Your task to perform on an android device: Open CNN.com Image 0: 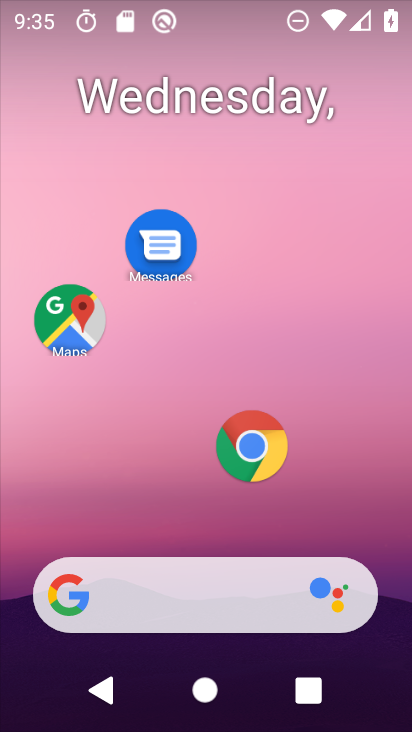
Step 0: drag from (227, 529) to (295, 171)
Your task to perform on an android device: Open CNN.com Image 1: 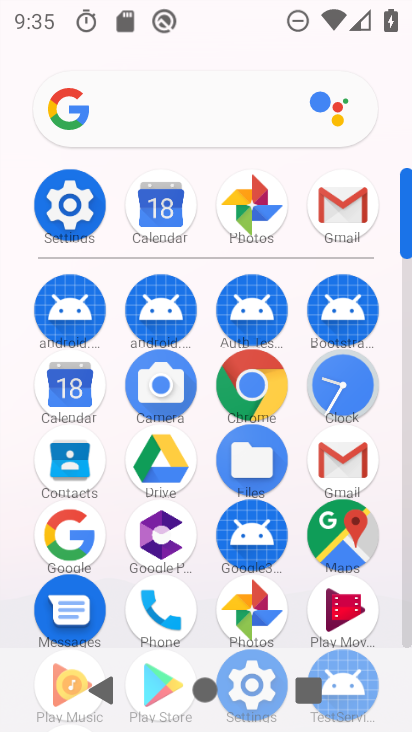
Step 1: click (248, 378)
Your task to perform on an android device: Open CNN.com Image 2: 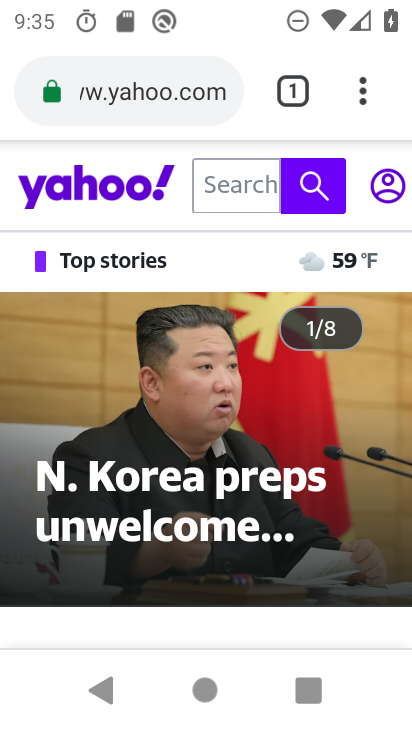
Step 2: click (295, 99)
Your task to perform on an android device: Open CNN.com Image 3: 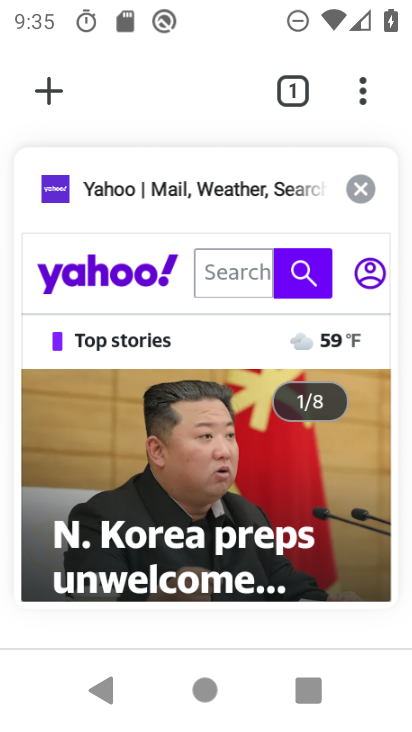
Step 3: click (365, 193)
Your task to perform on an android device: Open CNN.com Image 4: 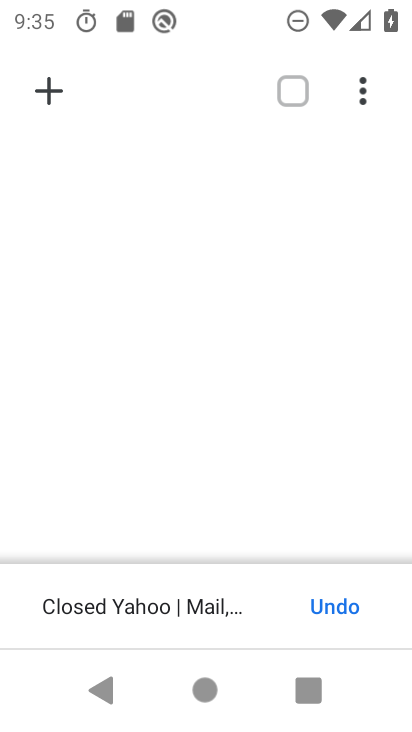
Step 4: click (61, 93)
Your task to perform on an android device: Open CNN.com Image 5: 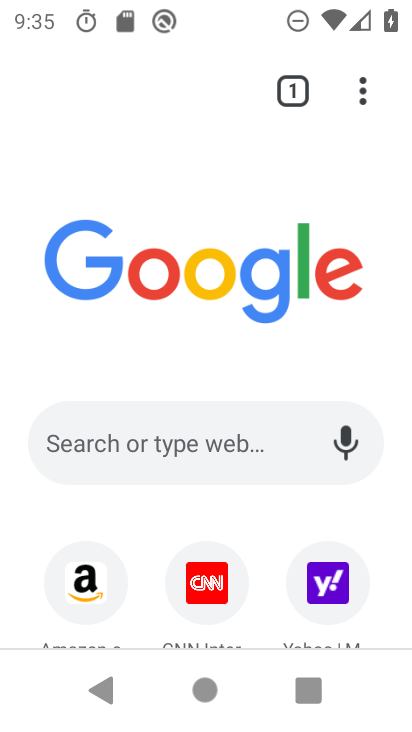
Step 5: click (181, 436)
Your task to perform on an android device: Open CNN.com Image 6: 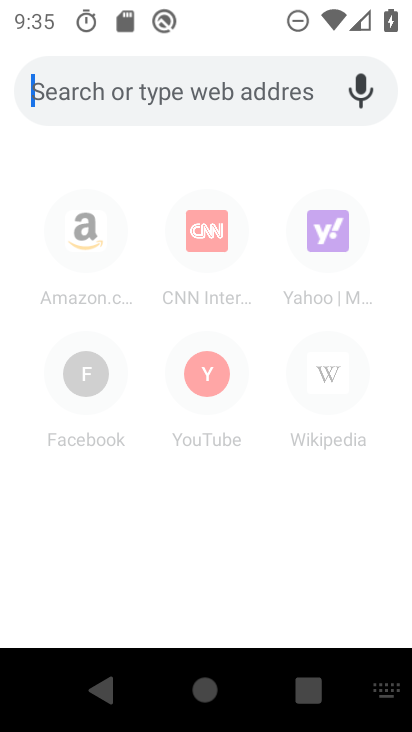
Step 6: click (224, 236)
Your task to perform on an android device: Open CNN.com Image 7: 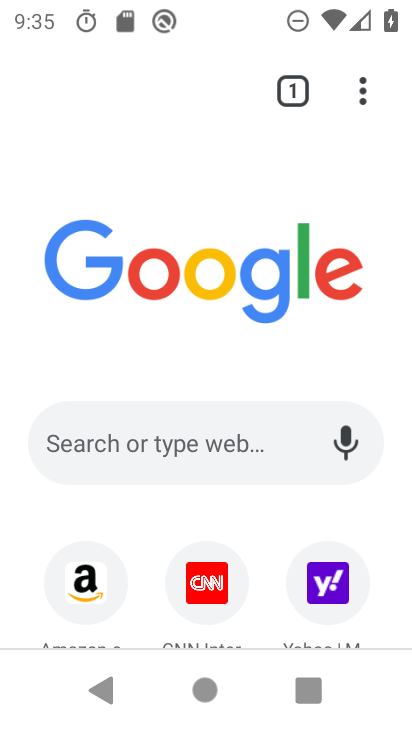
Step 7: click (203, 567)
Your task to perform on an android device: Open CNN.com Image 8: 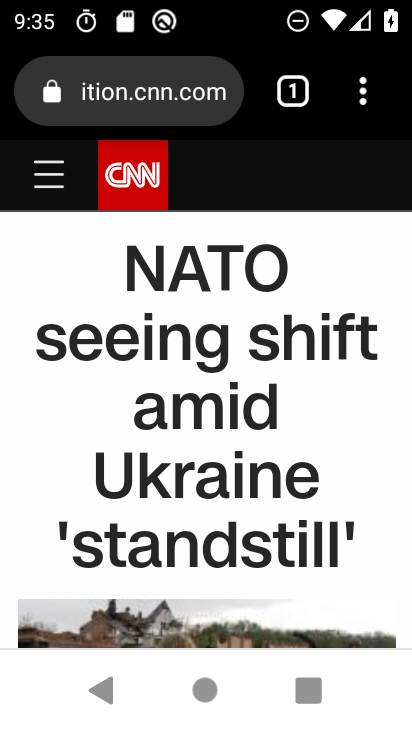
Step 8: drag from (205, 540) to (258, 230)
Your task to perform on an android device: Open CNN.com Image 9: 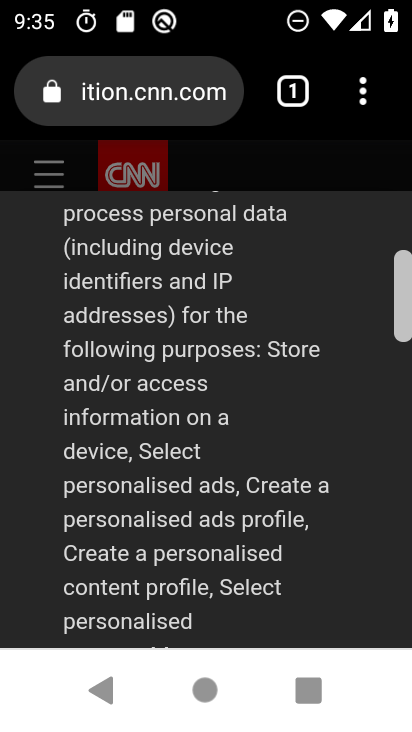
Step 9: drag from (191, 619) to (249, 346)
Your task to perform on an android device: Open CNN.com Image 10: 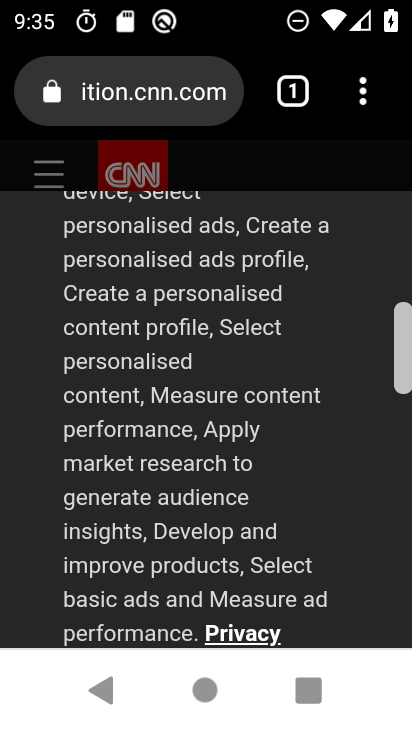
Step 10: drag from (214, 627) to (280, 367)
Your task to perform on an android device: Open CNN.com Image 11: 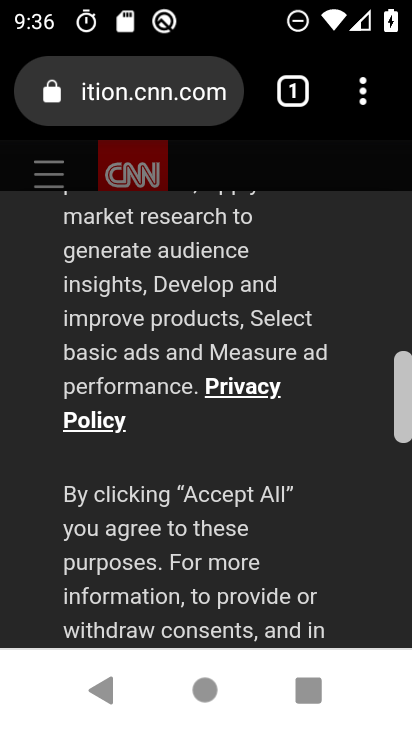
Step 11: drag from (217, 614) to (291, 259)
Your task to perform on an android device: Open CNN.com Image 12: 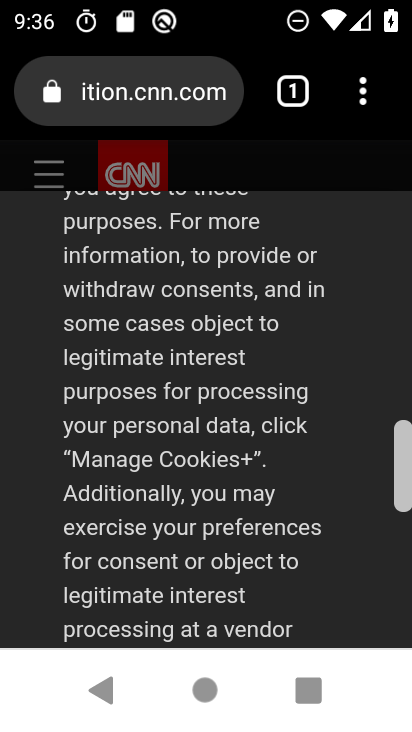
Step 12: drag from (209, 581) to (275, 221)
Your task to perform on an android device: Open CNN.com Image 13: 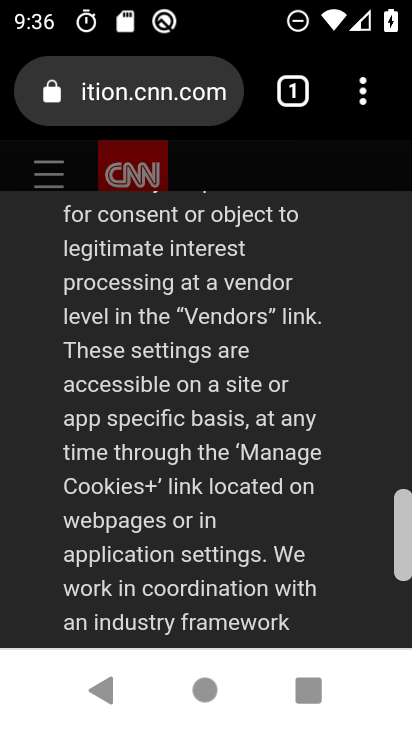
Step 13: drag from (202, 578) to (252, 238)
Your task to perform on an android device: Open CNN.com Image 14: 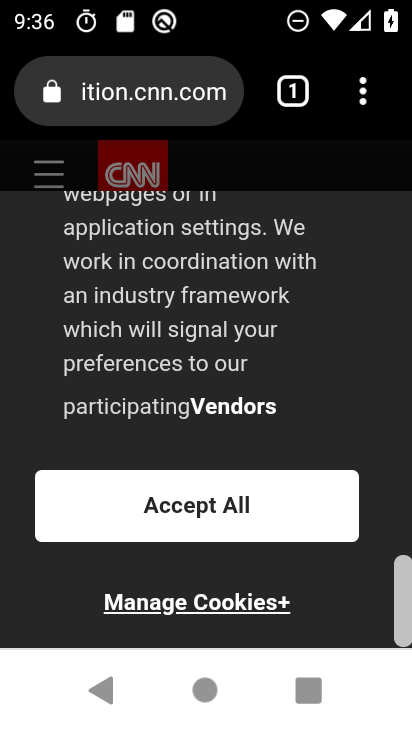
Step 14: click (199, 508)
Your task to perform on an android device: Open CNN.com Image 15: 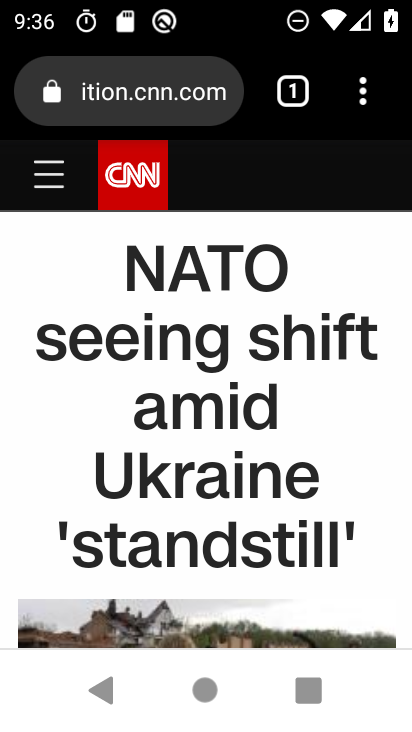
Step 15: task complete